Your task to perform on an android device: Open Google Chrome Image 0: 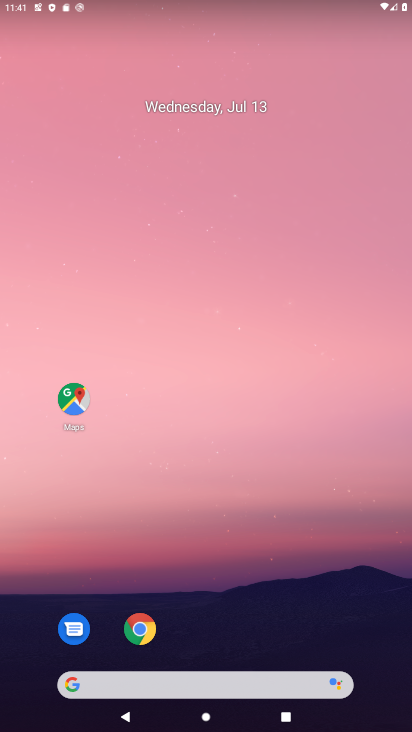
Step 0: press home button
Your task to perform on an android device: Open Google Chrome Image 1: 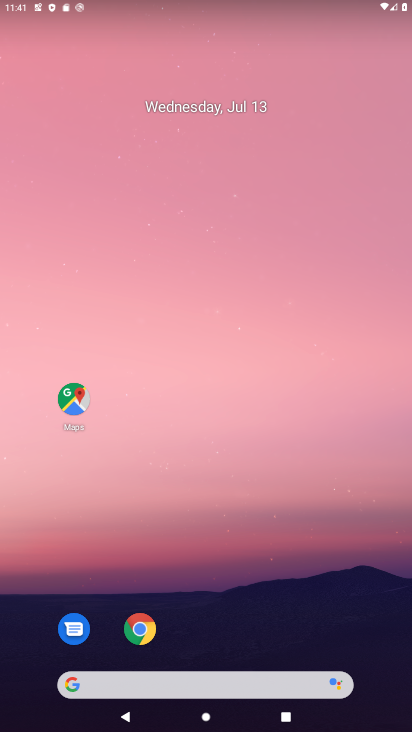
Step 1: drag from (200, 591) to (57, 50)
Your task to perform on an android device: Open Google Chrome Image 2: 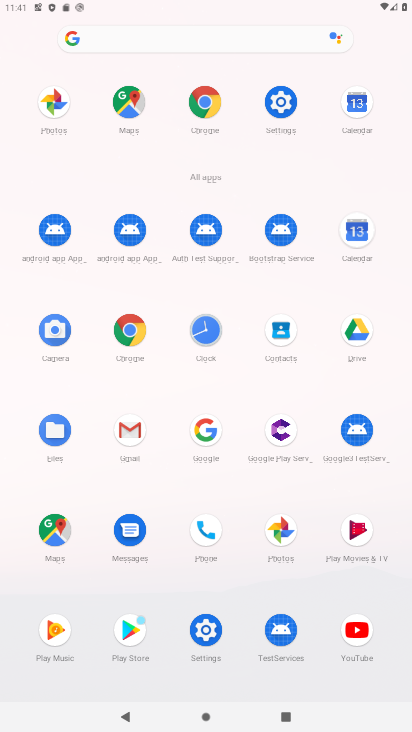
Step 2: click (195, 106)
Your task to perform on an android device: Open Google Chrome Image 3: 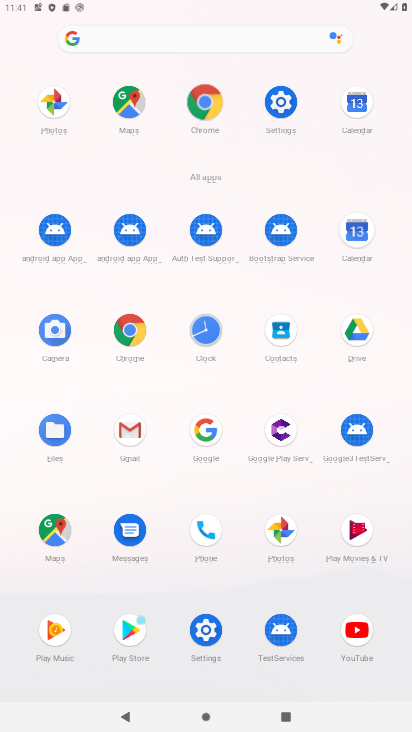
Step 3: click (201, 107)
Your task to perform on an android device: Open Google Chrome Image 4: 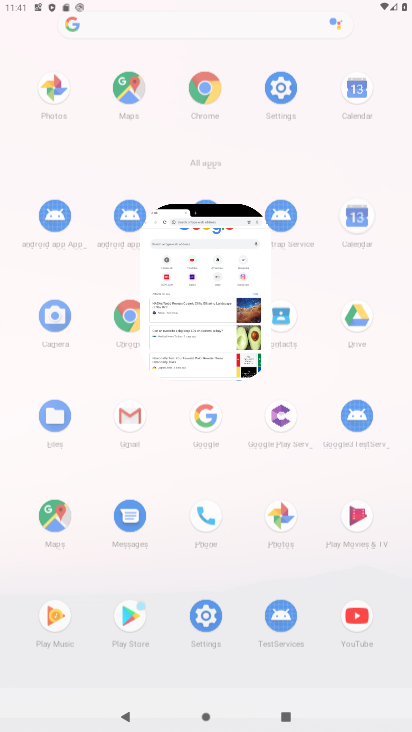
Step 4: click (201, 107)
Your task to perform on an android device: Open Google Chrome Image 5: 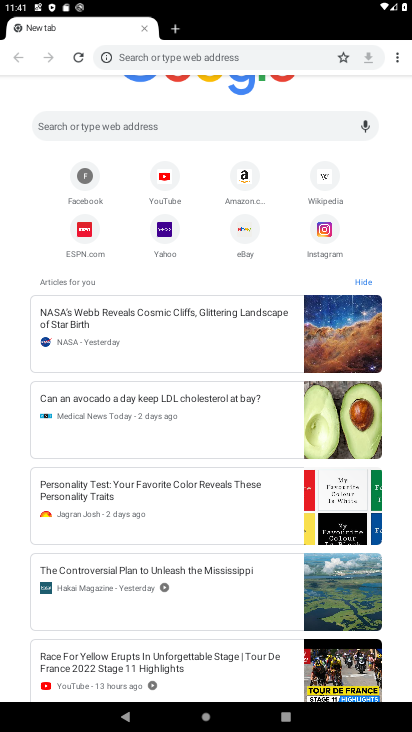
Step 5: task complete